Your task to perform on an android device: turn on wifi Image 0: 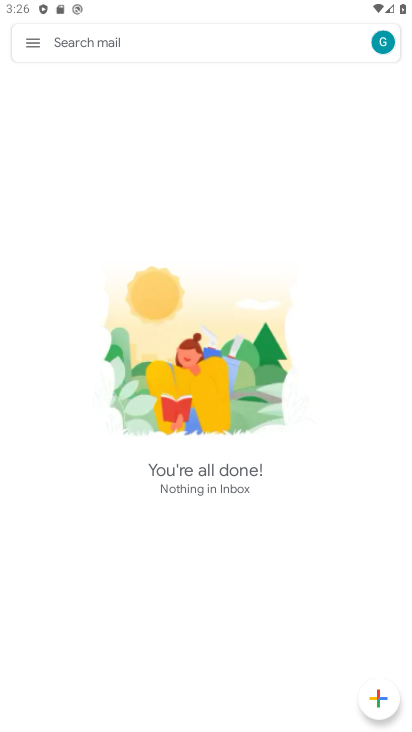
Step 0: press home button
Your task to perform on an android device: turn on wifi Image 1: 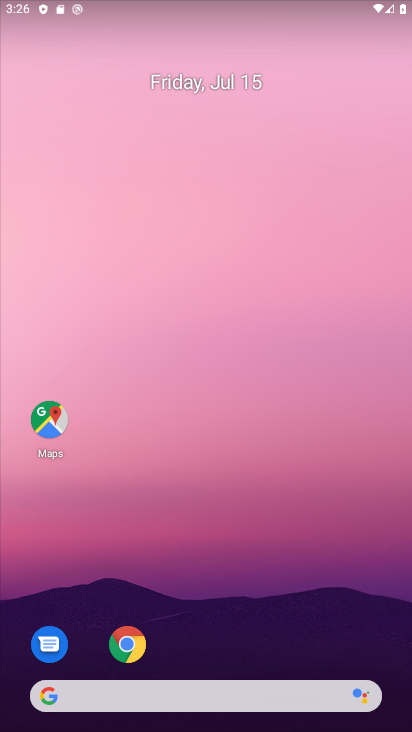
Step 1: drag from (250, 626) to (184, 0)
Your task to perform on an android device: turn on wifi Image 2: 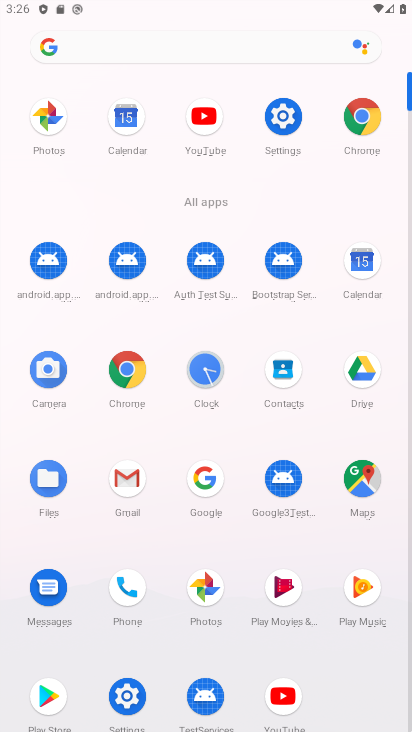
Step 2: click (292, 126)
Your task to perform on an android device: turn on wifi Image 3: 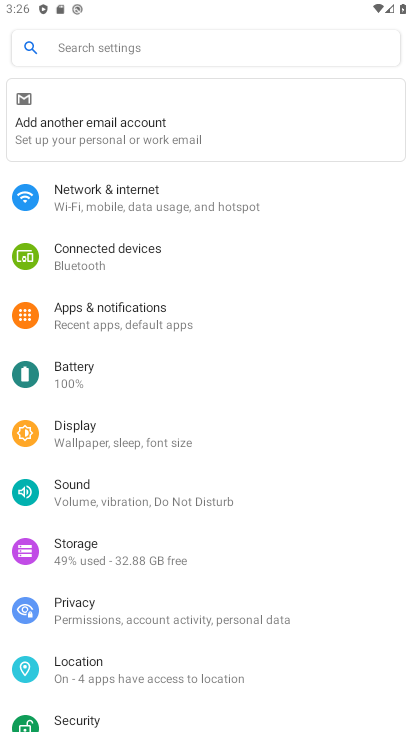
Step 3: click (274, 190)
Your task to perform on an android device: turn on wifi Image 4: 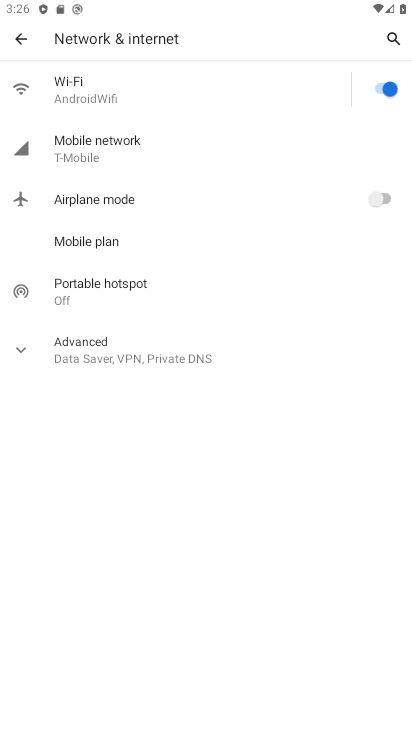
Step 4: task complete